Your task to perform on an android device: change alarm snooze length Image 0: 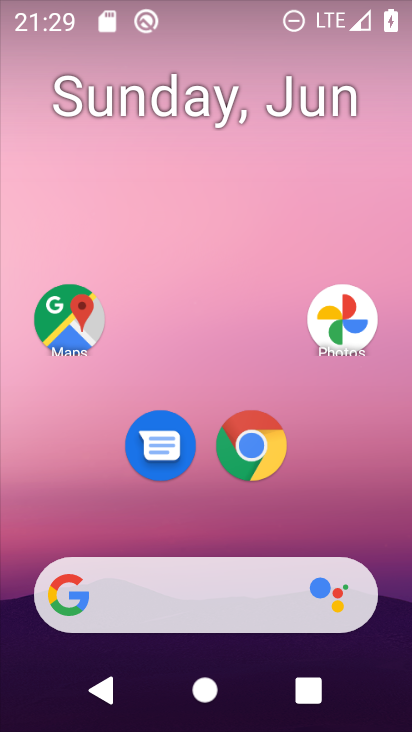
Step 0: drag from (212, 528) to (179, 84)
Your task to perform on an android device: change alarm snooze length Image 1: 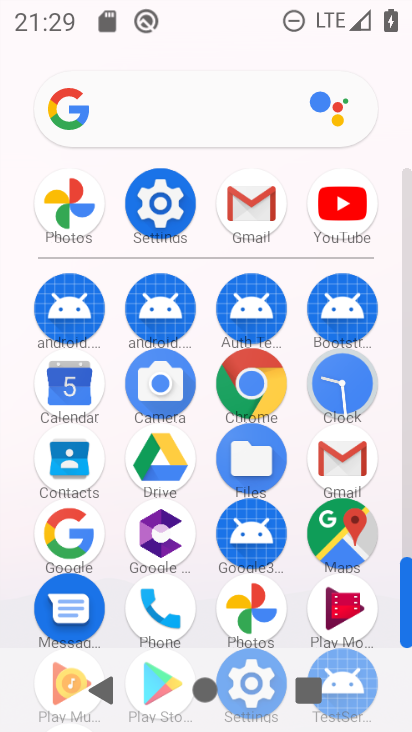
Step 1: click (367, 378)
Your task to perform on an android device: change alarm snooze length Image 2: 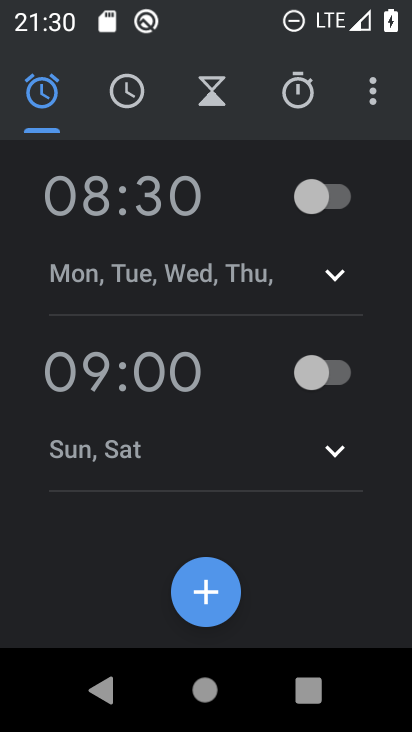
Step 2: click (379, 88)
Your task to perform on an android device: change alarm snooze length Image 3: 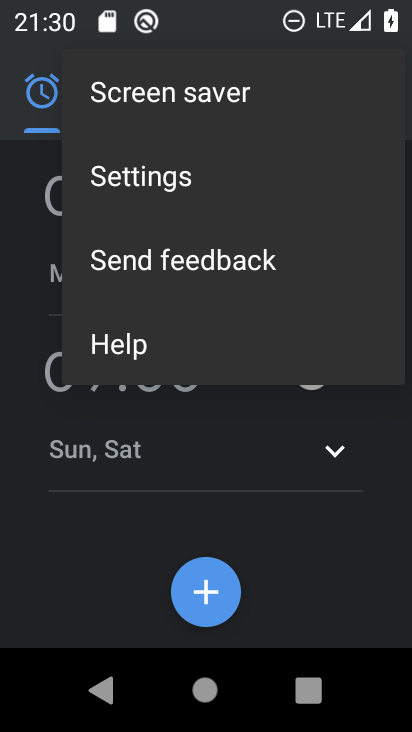
Step 3: click (151, 186)
Your task to perform on an android device: change alarm snooze length Image 4: 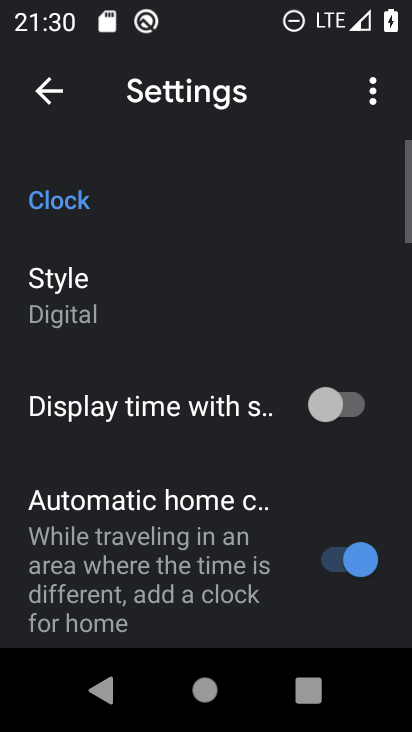
Step 4: drag from (182, 458) to (163, 95)
Your task to perform on an android device: change alarm snooze length Image 5: 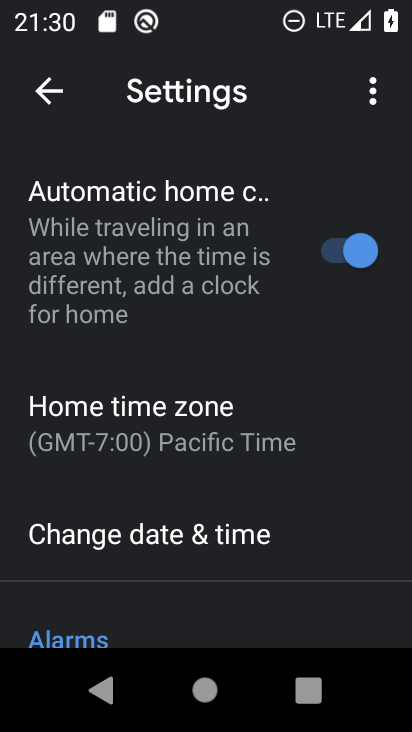
Step 5: drag from (229, 488) to (237, 226)
Your task to perform on an android device: change alarm snooze length Image 6: 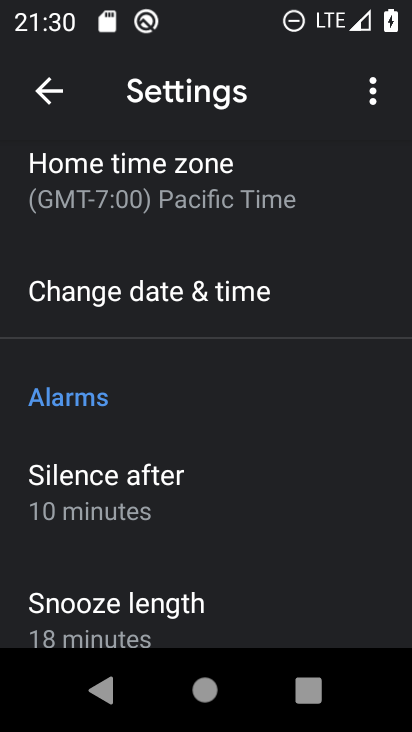
Step 6: drag from (246, 527) to (253, 292)
Your task to perform on an android device: change alarm snooze length Image 7: 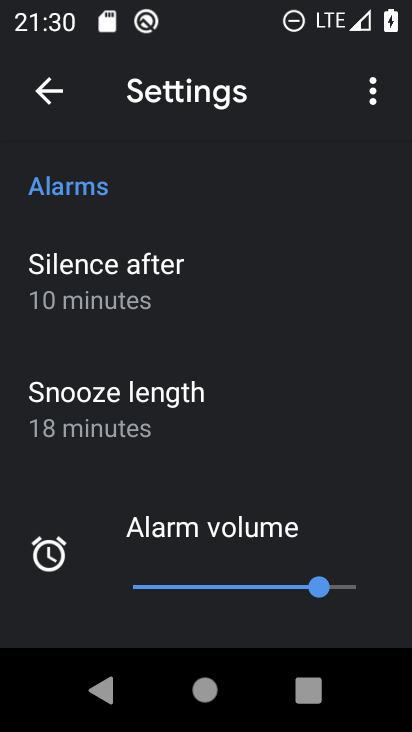
Step 7: click (119, 394)
Your task to perform on an android device: change alarm snooze length Image 8: 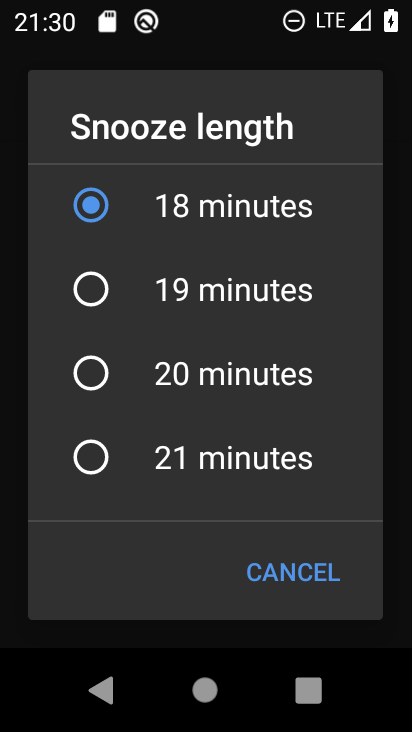
Step 8: click (90, 371)
Your task to perform on an android device: change alarm snooze length Image 9: 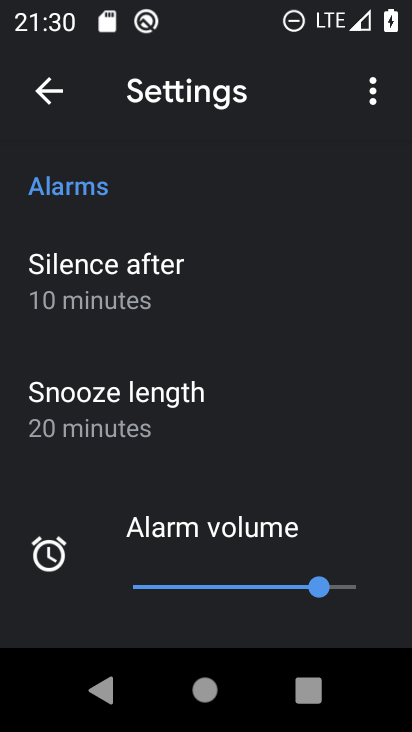
Step 9: task complete